Your task to perform on an android device: Go to ESPN.com Image 0: 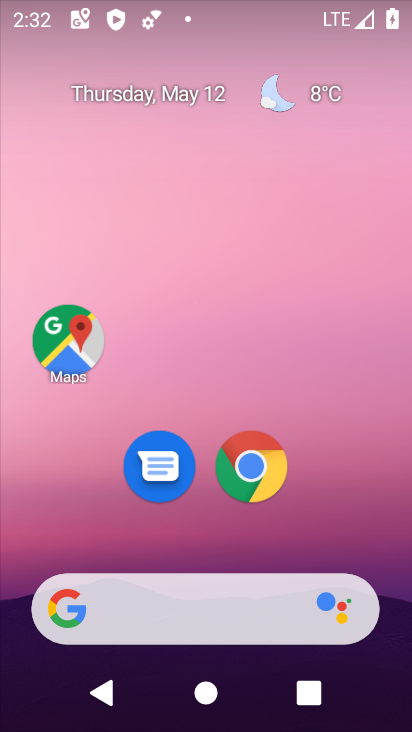
Step 0: click (252, 464)
Your task to perform on an android device: Go to ESPN.com Image 1: 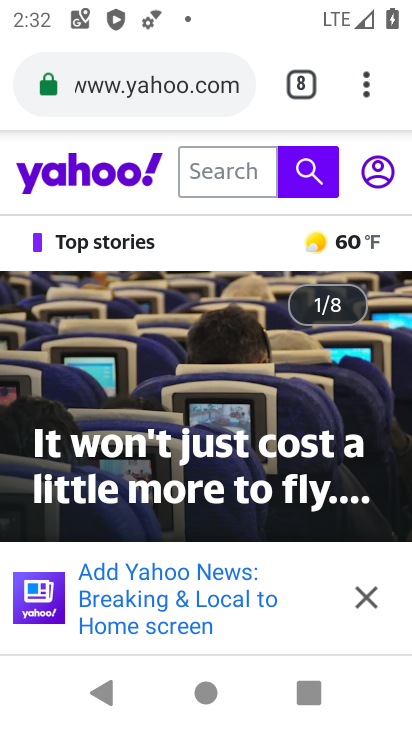
Step 1: click (304, 87)
Your task to perform on an android device: Go to ESPN.com Image 2: 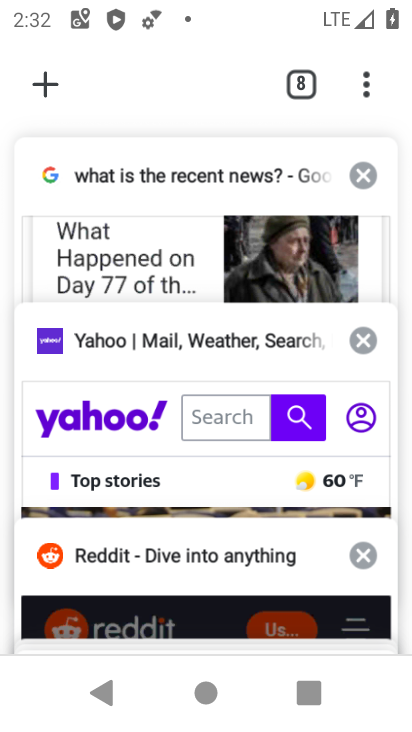
Step 2: drag from (179, 581) to (195, 151)
Your task to perform on an android device: Go to ESPN.com Image 3: 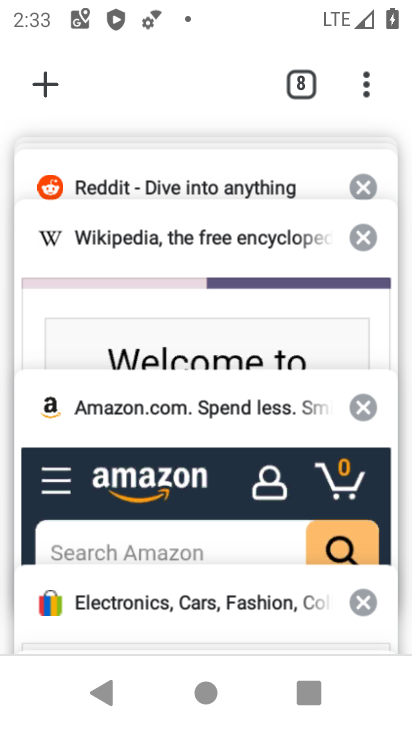
Step 3: drag from (144, 569) to (137, 300)
Your task to perform on an android device: Go to ESPN.com Image 4: 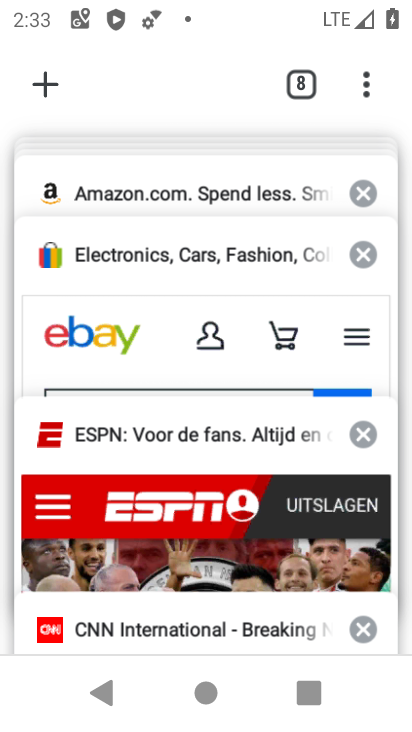
Step 4: click (117, 553)
Your task to perform on an android device: Go to ESPN.com Image 5: 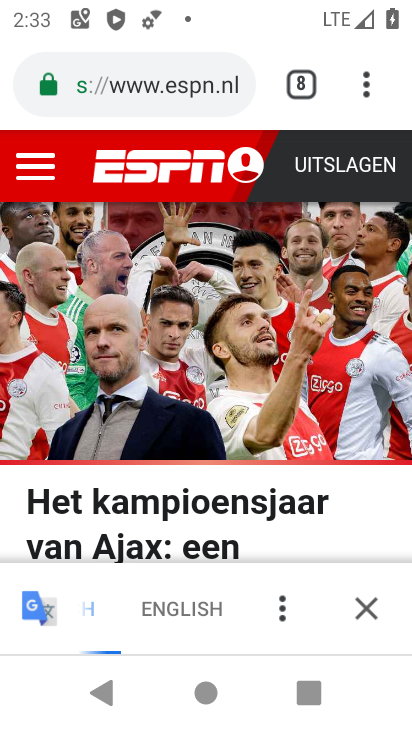
Step 5: click (202, 618)
Your task to perform on an android device: Go to ESPN.com Image 6: 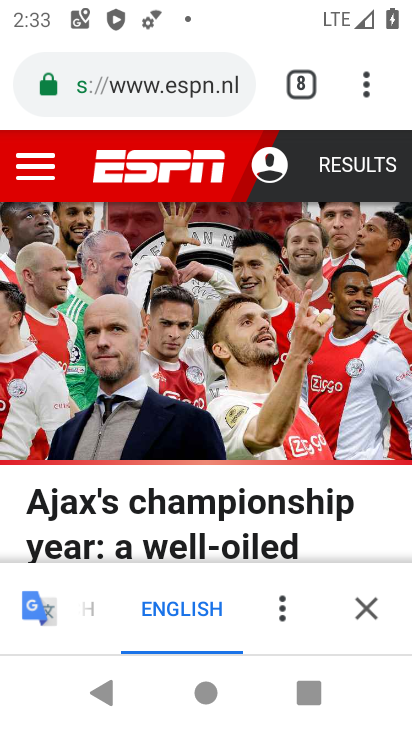
Step 6: click (358, 608)
Your task to perform on an android device: Go to ESPN.com Image 7: 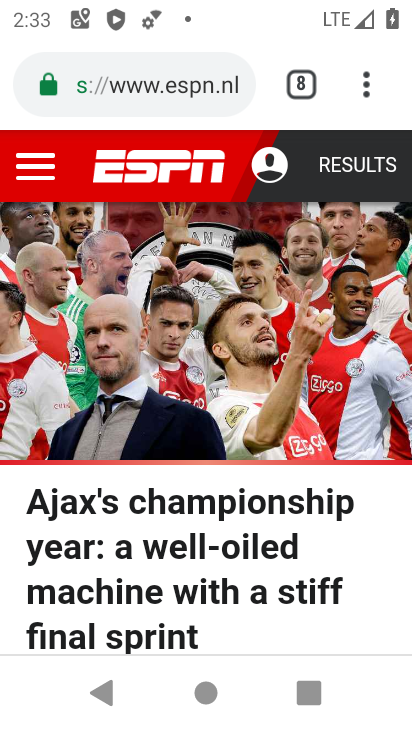
Step 7: task complete